Your task to perform on an android device: star an email in the gmail app Image 0: 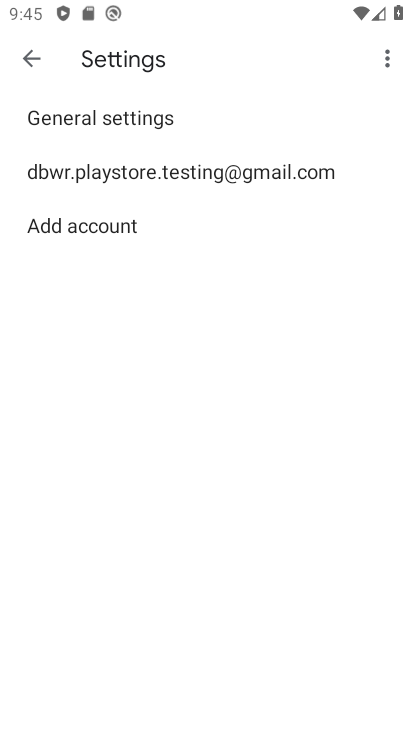
Step 0: press back button
Your task to perform on an android device: star an email in the gmail app Image 1: 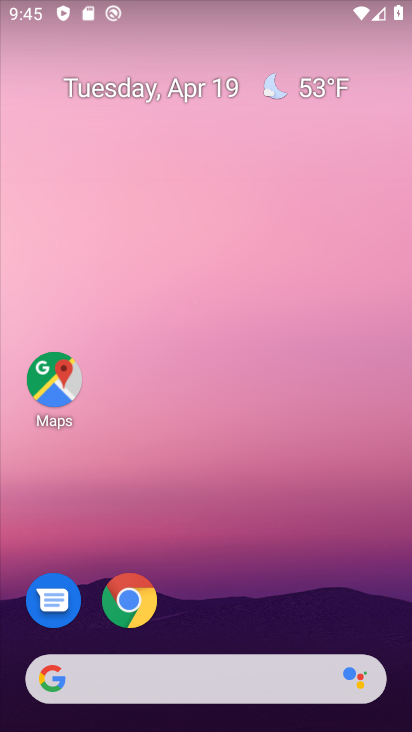
Step 1: drag from (203, 542) to (337, 7)
Your task to perform on an android device: star an email in the gmail app Image 2: 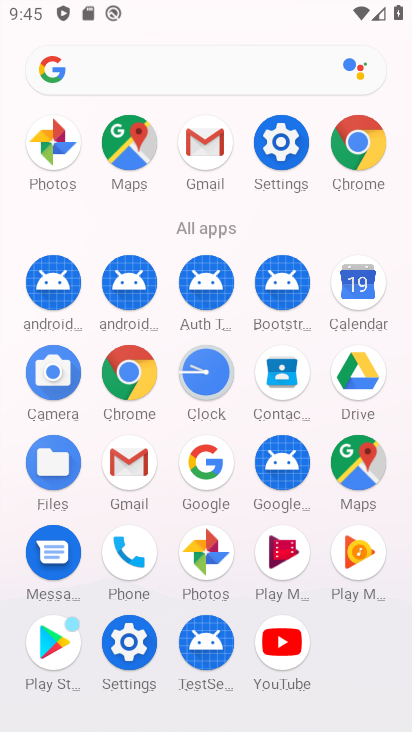
Step 2: click (150, 473)
Your task to perform on an android device: star an email in the gmail app Image 3: 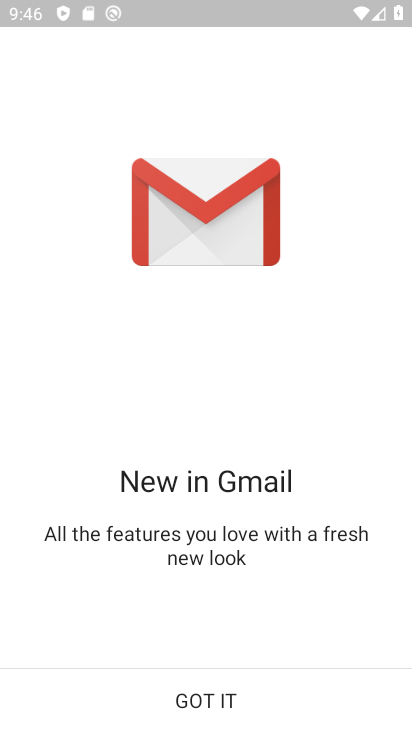
Step 3: click (261, 676)
Your task to perform on an android device: star an email in the gmail app Image 4: 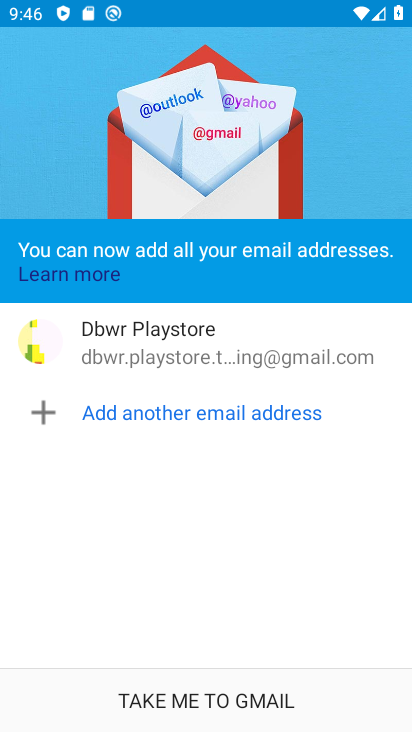
Step 4: click (258, 703)
Your task to perform on an android device: star an email in the gmail app Image 5: 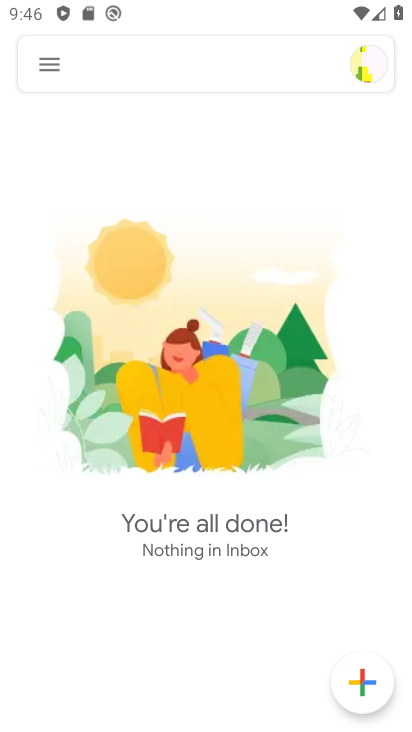
Step 5: click (60, 73)
Your task to perform on an android device: star an email in the gmail app Image 6: 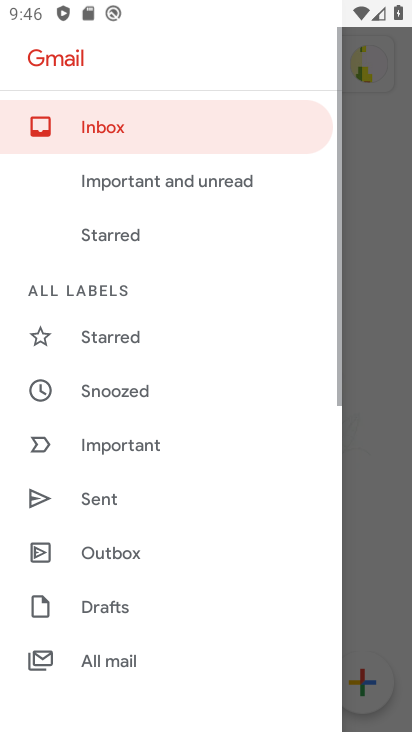
Step 6: click (152, 667)
Your task to perform on an android device: star an email in the gmail app Image 7: 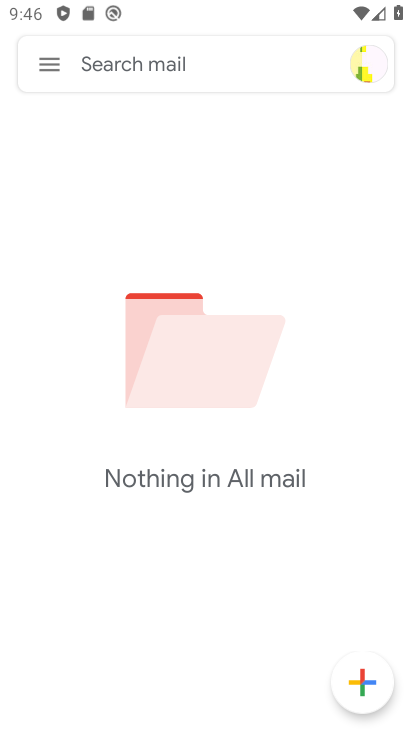
Step 7: task complete